Your task to perform on an android device: move an email to a new category in the gmail app Image 0: 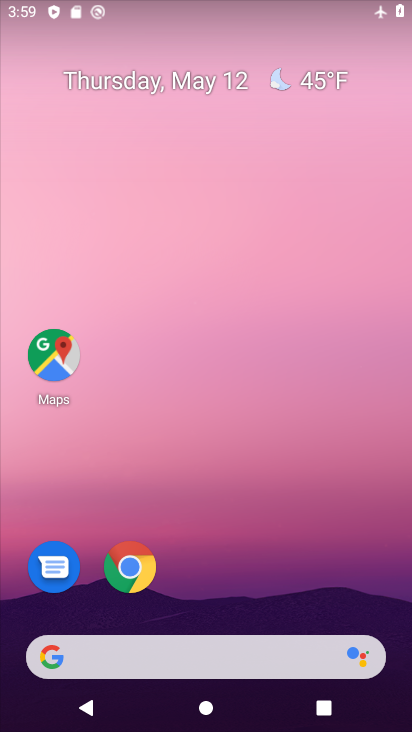
Step 0: drag from (204, 601) to (178, 181)
Your task to perform on an android device: move an email to a new category in the gmail app Image 1: 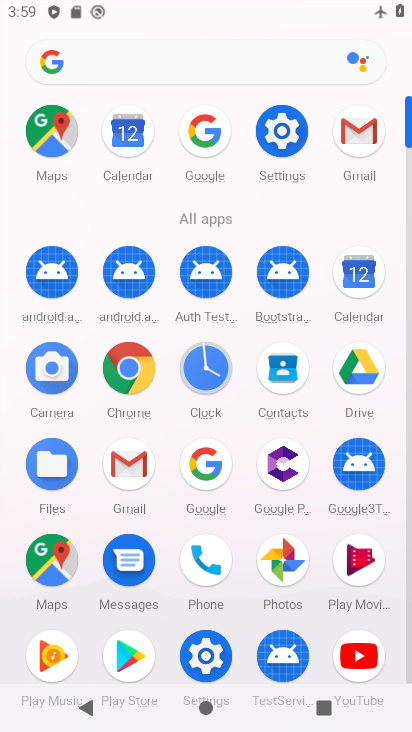
Step 1: click (351, 151)
Your task to perform on an android device: move an email to a new category in the gmail app Image 2: 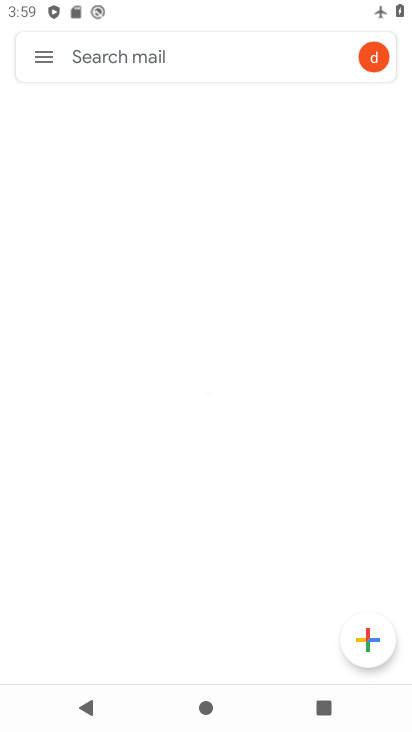
Step 2: click (43, 59)
Your task to perform on an android device: move an email to a new category in the gmail app Image 3: 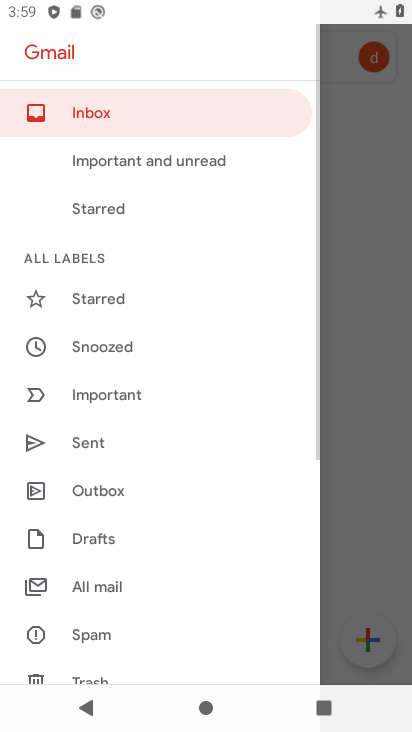
Step 3: click (125, 588)
Your task to perform on an android device: move an email to a new category in the gmail app Image 4: 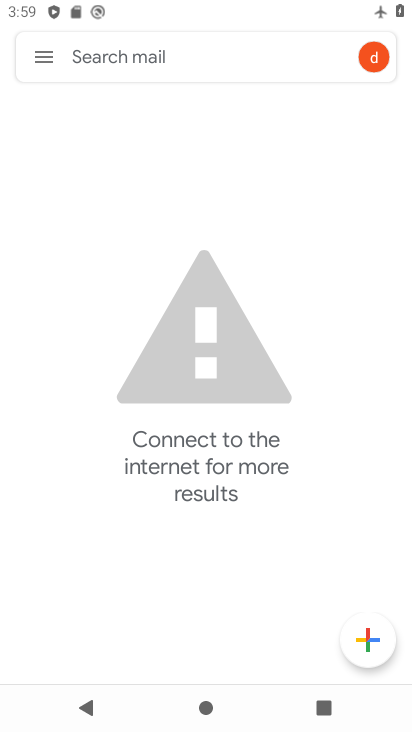
Step 4: task complete